Your task to perform on an android device: When is my next appointment? Image 0: 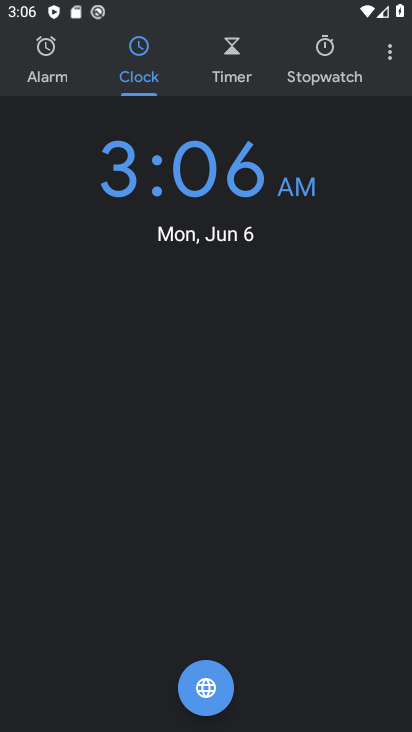
Step 0: press home button
Your task to perform on an android device: When is my next appointment? Image 1: 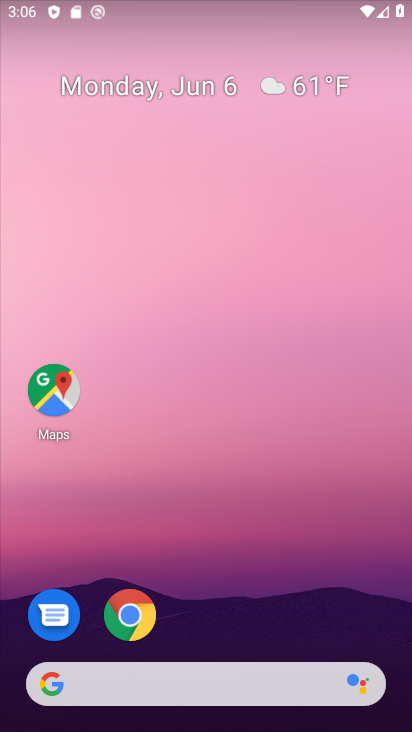
Step 1: drag from (235, 633) to (254, 84)
Your task to perform on an android device: When is my next appointment? Image 2: 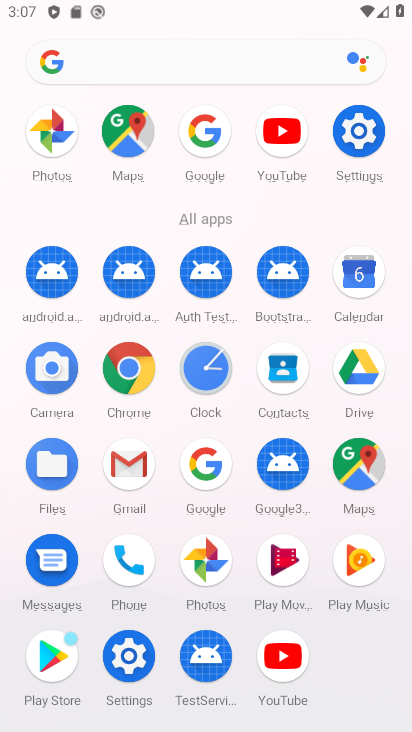
Step 2: click (373, 269)
Your task to perform on an android device: When is my next appointment? Image 3: 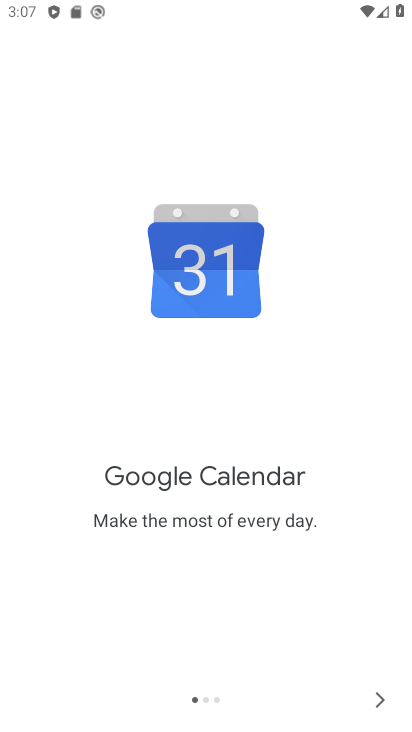
Step 3: click (384, 698)
Your task to perform on an android device: When is my next appointment? Image 4: 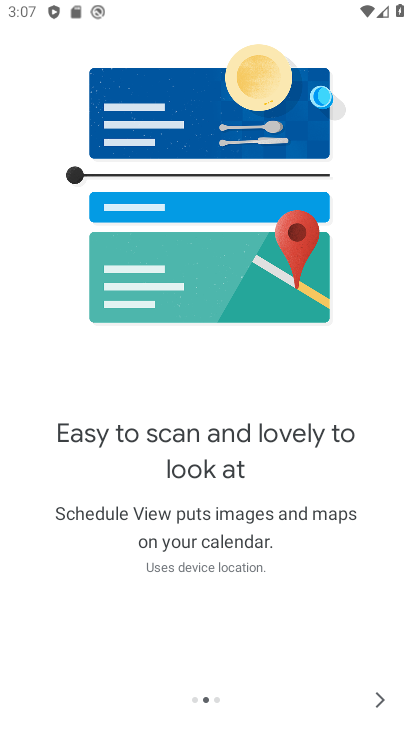
Step 4: click (384, 698)
Your task to perform on an android device: When is my next appointment? Image 5: 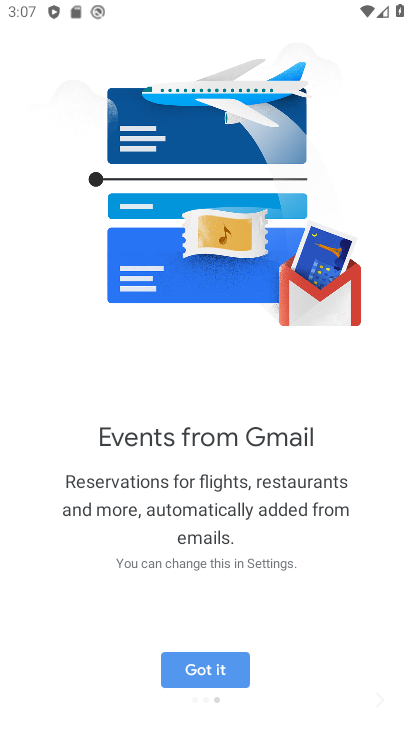
Step 5: click (384, 698)
Your task to perform on an android device: When is my next appointment? Image 6: 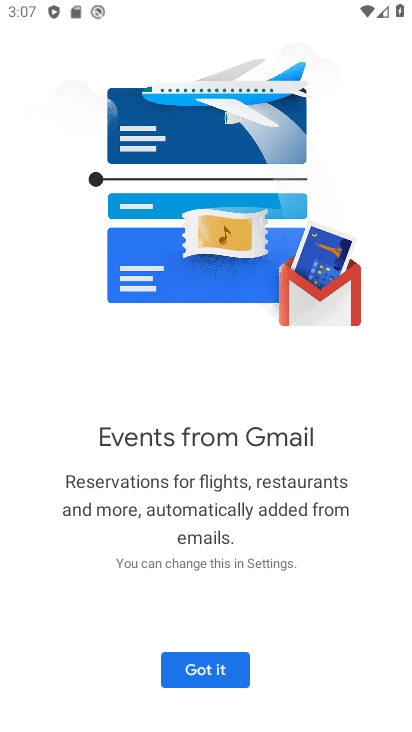
Step 6: click (214, 657)
Your task to perform on an android device: When is my next appointment? Image 7: 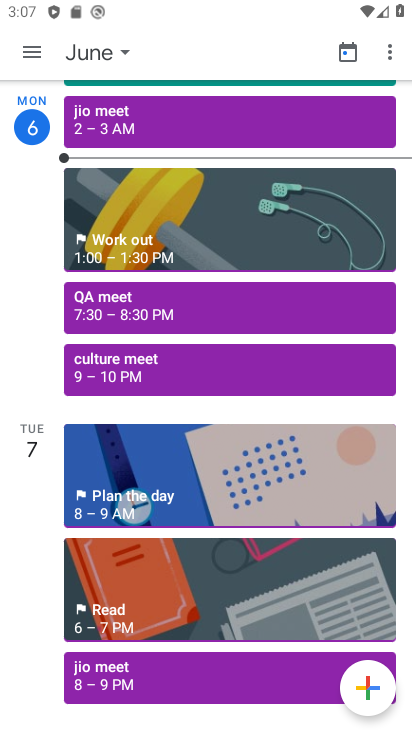
Step 7: click (26, 446)
Your task to perform on an android device: When is my next appointment? Image 8: 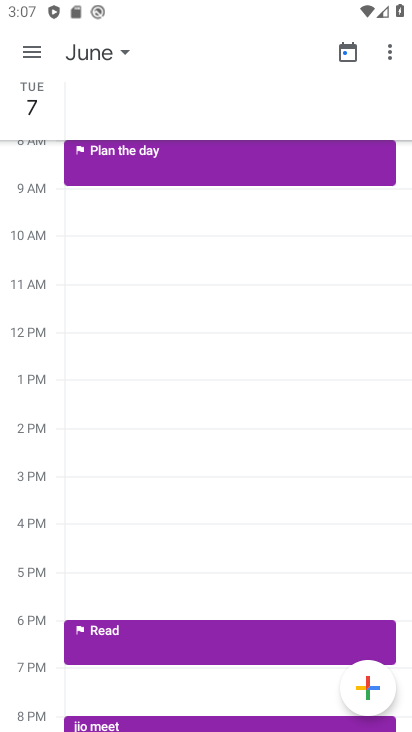
Step 8: task complete